Your task to perform on an android device: Open Google Maps Image 0: 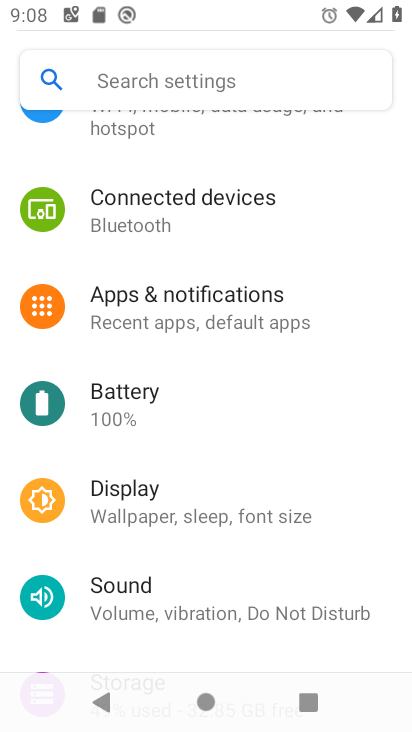
Step 0: press home button
Your task to perform on an android device: Open Google Maps Image 1: 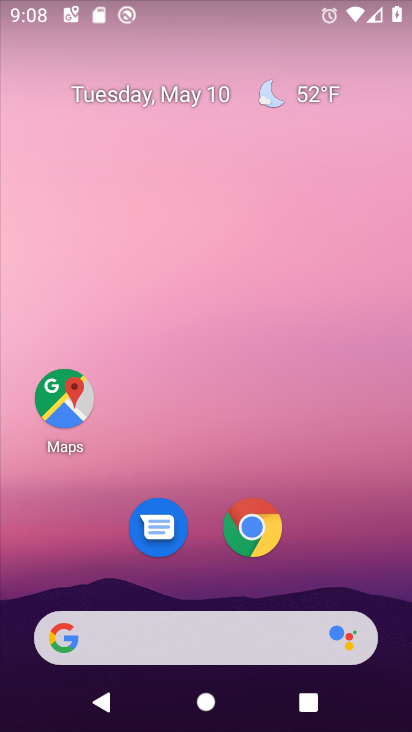
Step 1: click (62, 398)
Your task to perform on an android device: Open Google Maps Image 2: 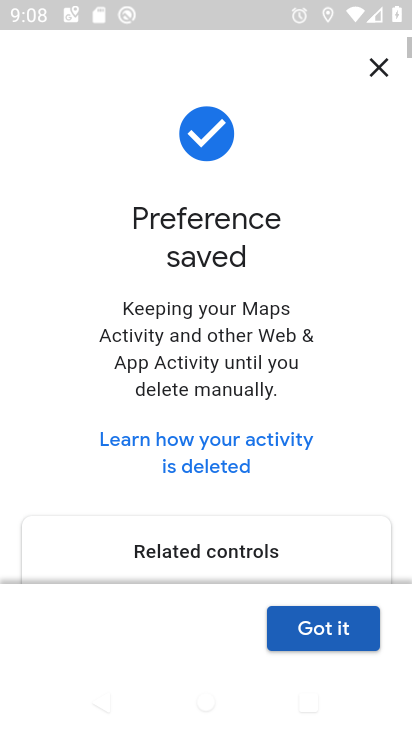
Step 2: task complete